Your task to perform on an android device: Open calendar and show me the fourth week of next month Image 0: 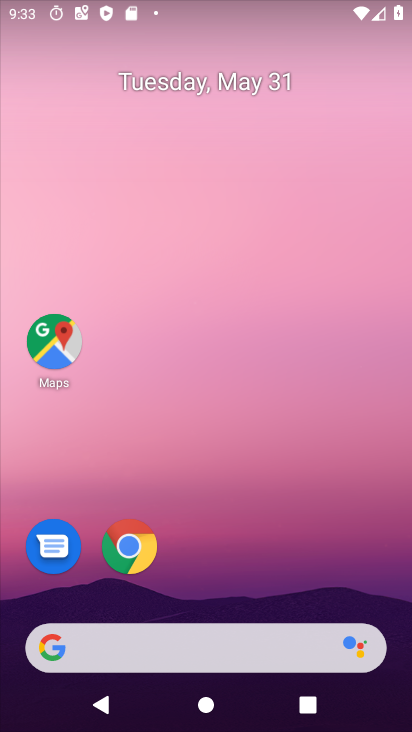
Step 0: click (221, 148)
Your task to perform on an android device: Open calendar and show me the fourth week of next month Image 1: 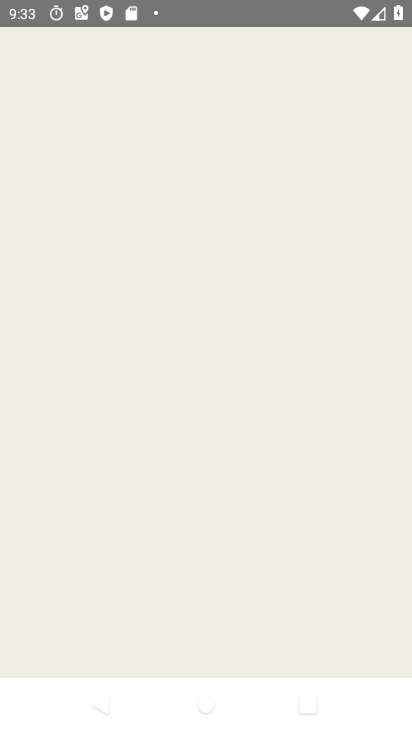
Step 1: press home button
Your task to perform on an android device: Open calendar and show me the fourth week of next month Image 2: 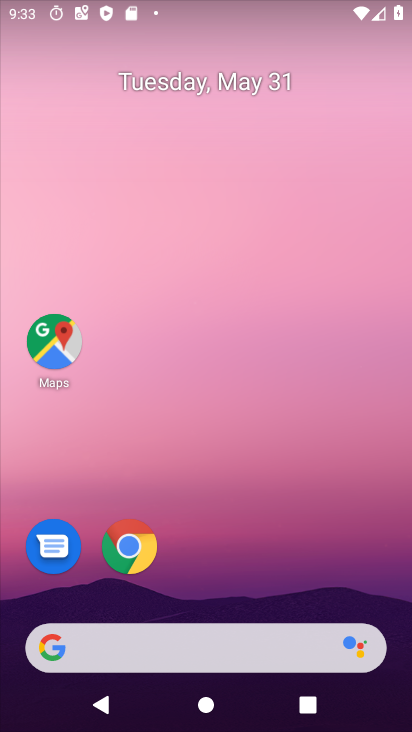
Step 2: click (213, 83)
Your task to perform on an android device: Open calendar and show me the fourth week of next month Image 3: 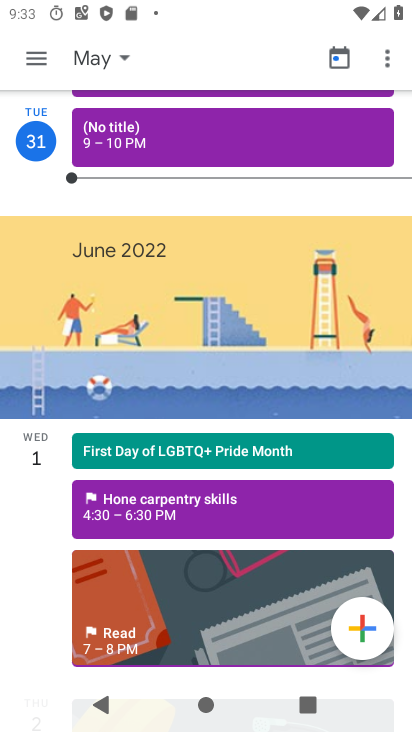
Step 3: click (43, 61)
Your task to perform on an android device: Open calendar and show me the fourth week of next month Image 4: 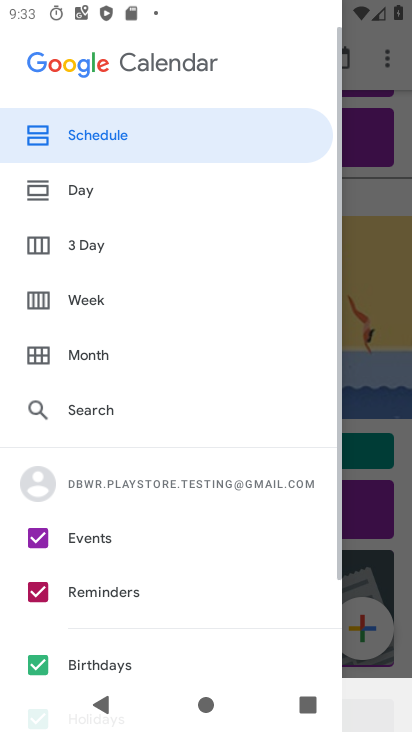
Step 4: click (105, 301)
Your task to perform on an android device: Open calendar and show me the fourth week of next month Image 5: 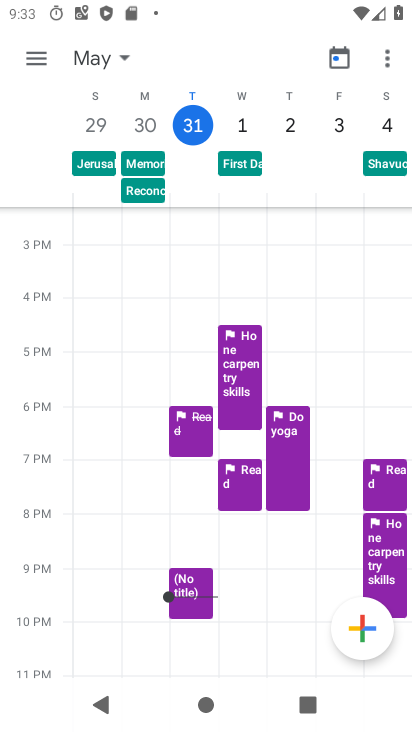
Step 5: click (113, 50)
Your task to perform on an android device: Open calendar and show me the fourth week of next month Image 6: 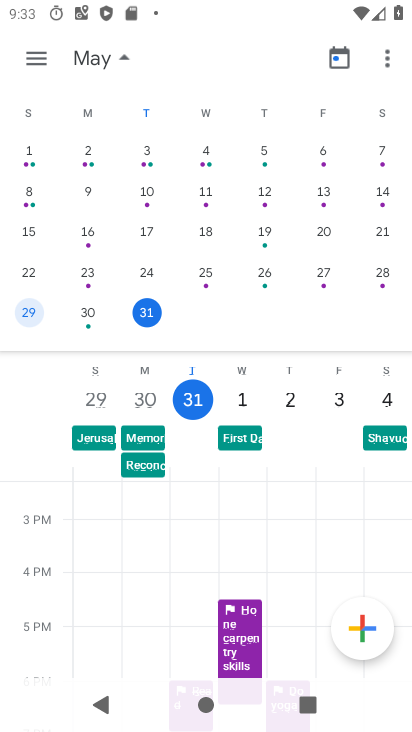
Step 6: drag from (338, 319) to (12, 309)
Your task to perform on an android device: Open calendar and show me the fourth week of next month Image 7: 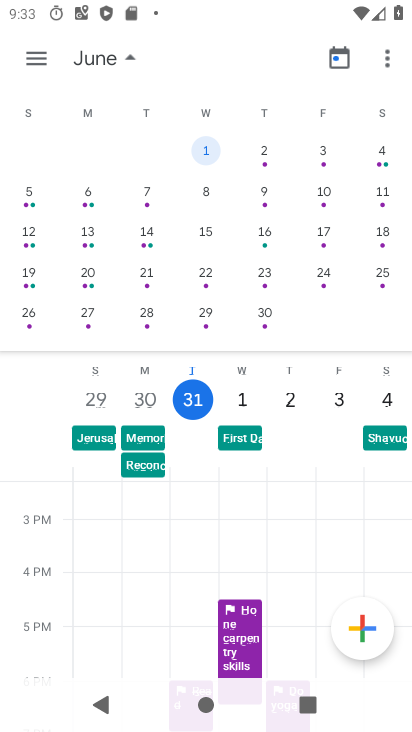
Step 7: click (203, 277)
Your task to perform on an android device: Open calendar and show me the fourth week of next month Image 8: 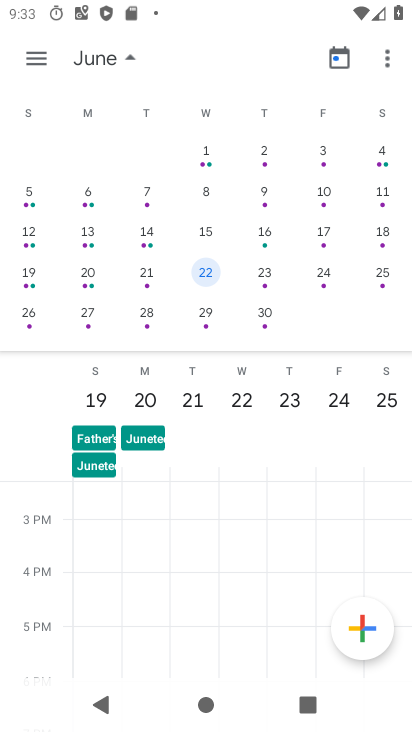
Step 8: task complete